Your task to perform on an android device: check storage Image 0: 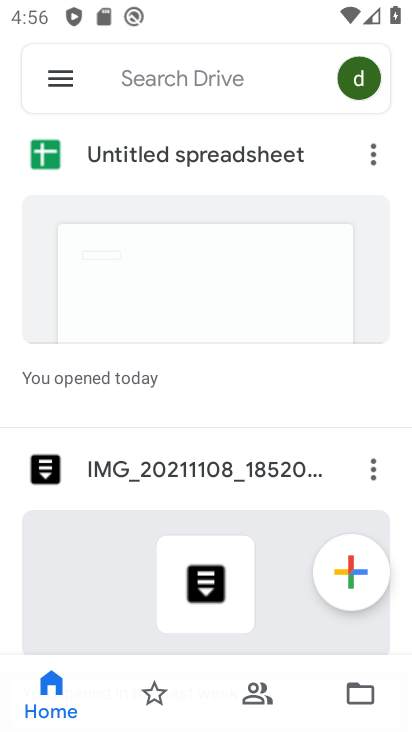
Step 0: press home button
Your task to perform on an android device: check storage Image 1: 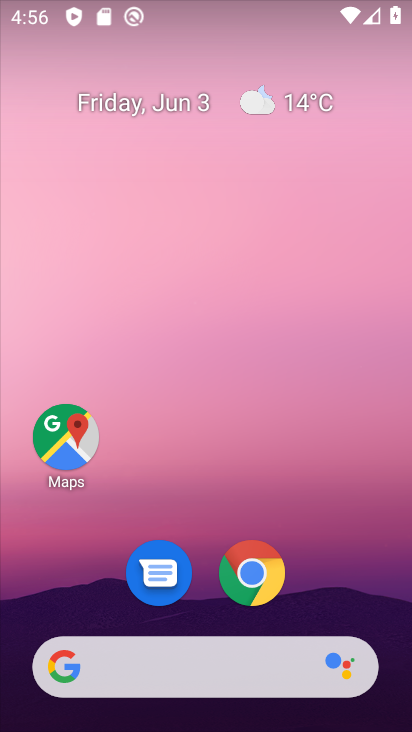
Step 1: drag from (327, 577) to (281, 348)
Your task to perform on an android device: check storage Image 2: 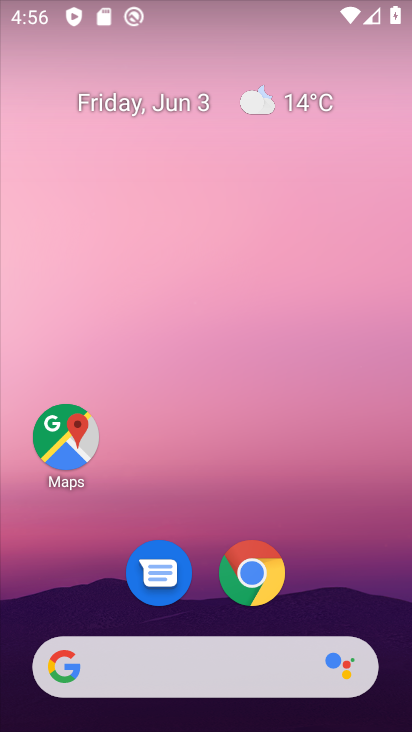
Step 2: drag from (356, 593) to (279, 111)
Your task to perform on an android device: check storage Image 3: 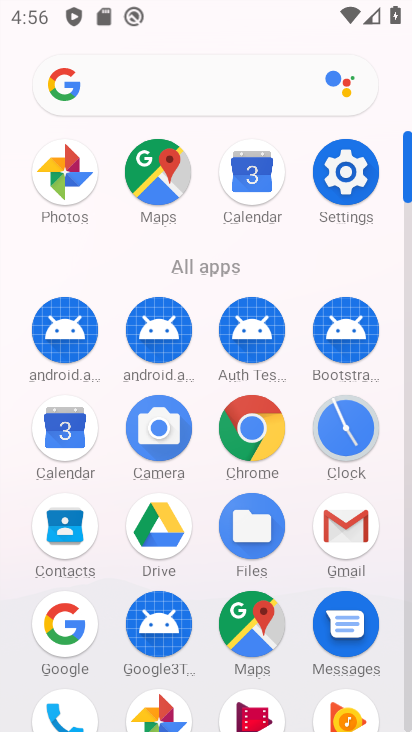
Step 3: click (342, 169)
Your task to perform on an android device: check storage Image 4: 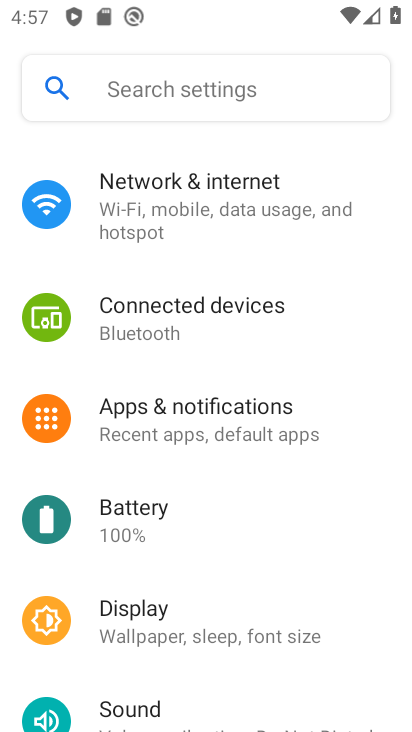
Step 4: drag from (231, 574) to (211, 237)
Your task to perform on an android device: check storage Image 5: 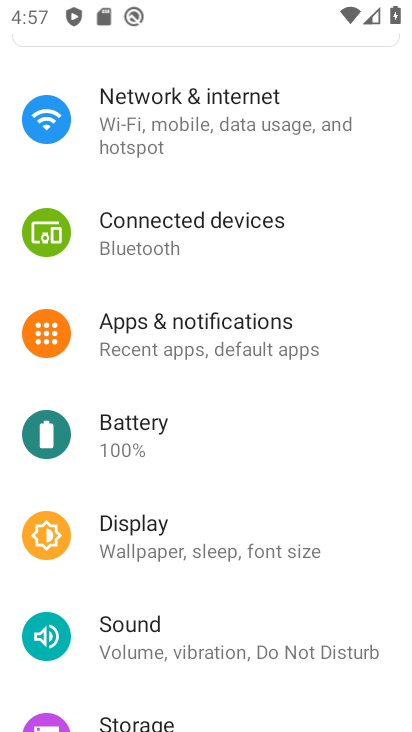
Step 5: drag from (220, 625) to (195, 267)
Your task to perform on an android device: check storage Image 6: 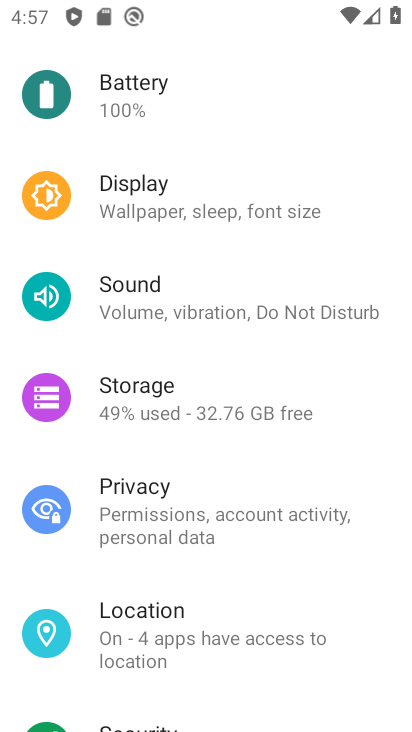
Step 6: click (176, 388)
Your task to perform on an android device: check storage Image 7: 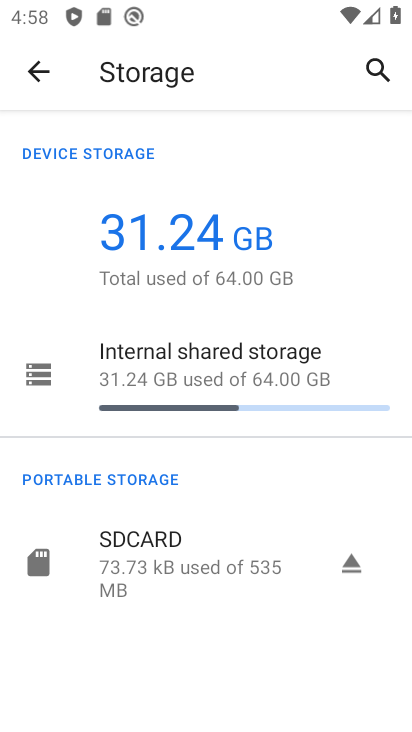
Step 7: task complete